Your task to perform on an android device: move a message to another label in the gmail app Image 0: 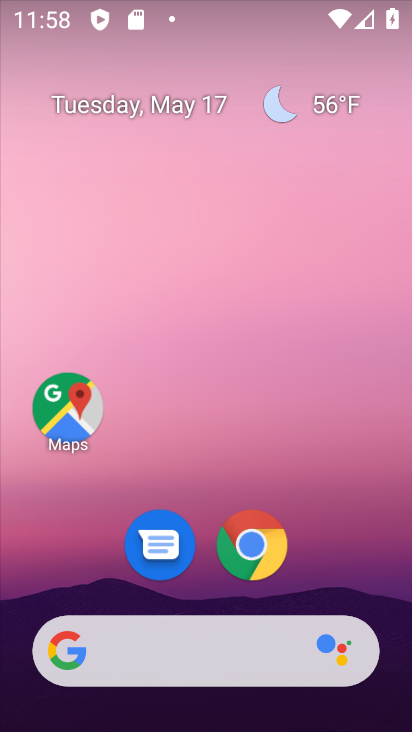
Step 0: drag from (348, 585) to (223, 51)
Your task to perform on an android device: move a message to another label in the gmail app Image 1: 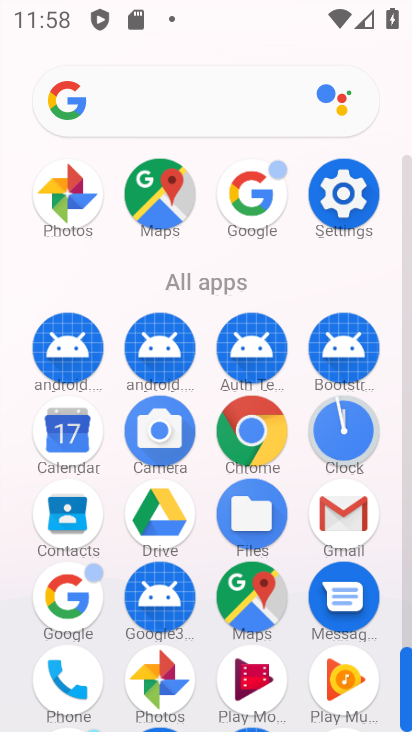
Step 1: click (343, 516)
Your task to perform on an android device: move a message to another label in the gmail app Image 2: 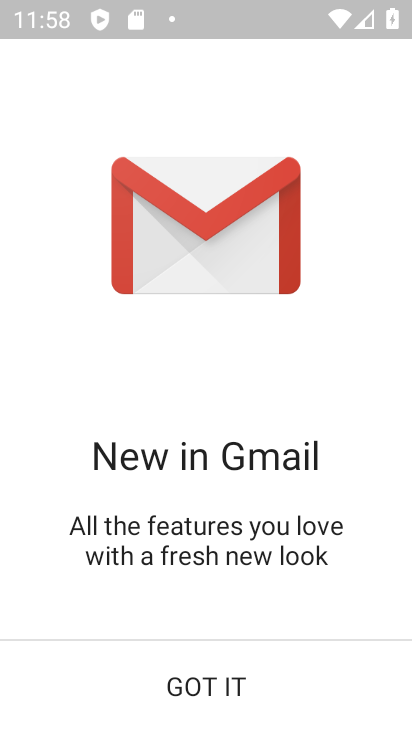
Step 2: click (186, 685)
Your task to perform on an android device: move a message to another label in the gmail app Image 3: 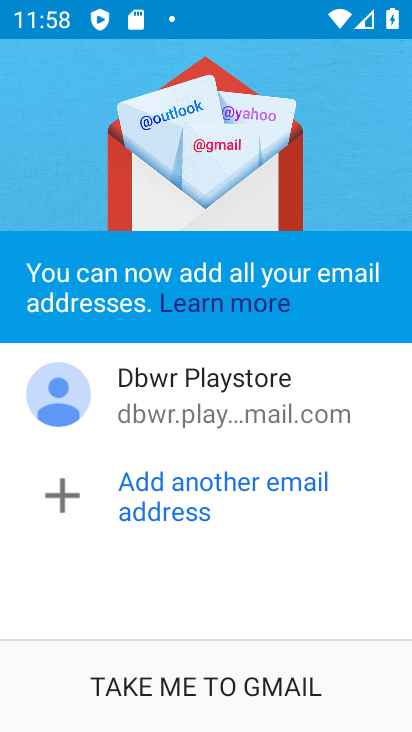
Step 3: click (186, 685)
Your task to perform on an android device: move a message to another label in the gmail app Image 4: 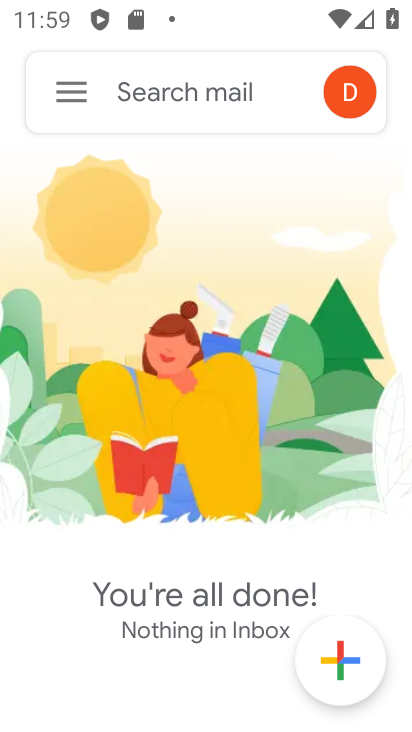
Step 4: click (74, 89)
Your task to perform on an android device: move a message to another label in the gmail app Image 5: 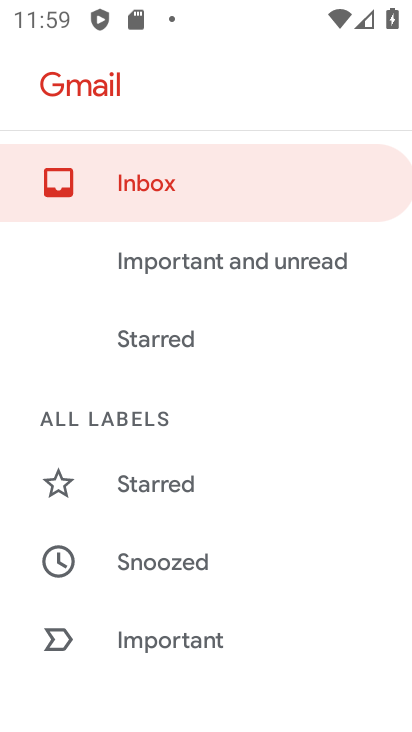
Step 5: drag from (155, 445) to (214, 365)
Your task to perform on an android device: move a message to another label in the gmail app Image 6: 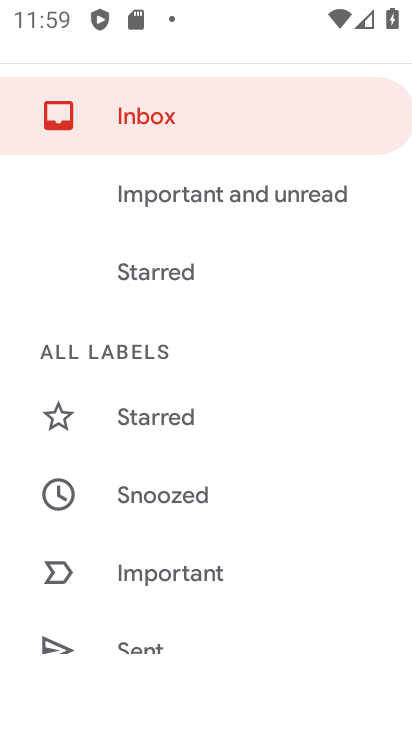
Step 6: drag from (201, 448) to (248, 367)
Your task to perform on an android device: move a message to another label in the gmail app Image 7: 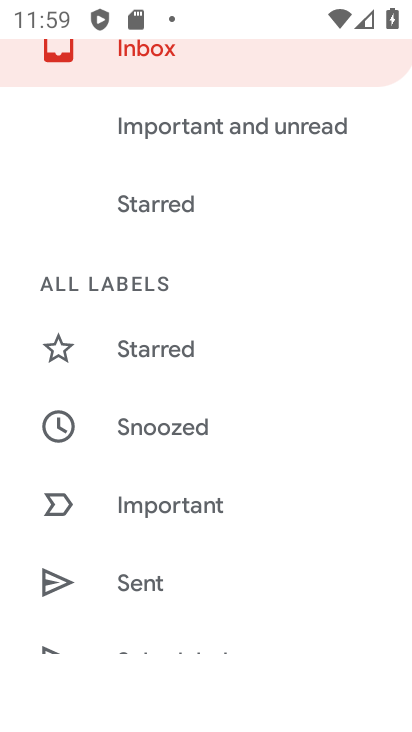
Step 7: drag from (213, 473) to (229, 385)
Your task to perform on an android device: move a message to another label in the gmail app Image 8: 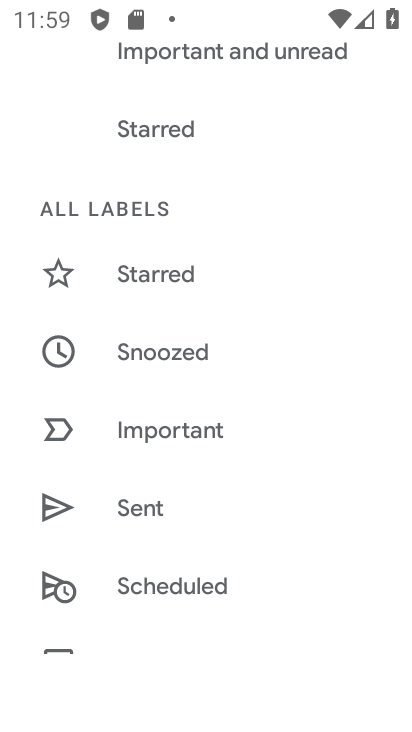
Step 8: drag from (216, 497) to (256, 402)
Your task to perform on an android device: move a message to another label in the gmail app Image 9: 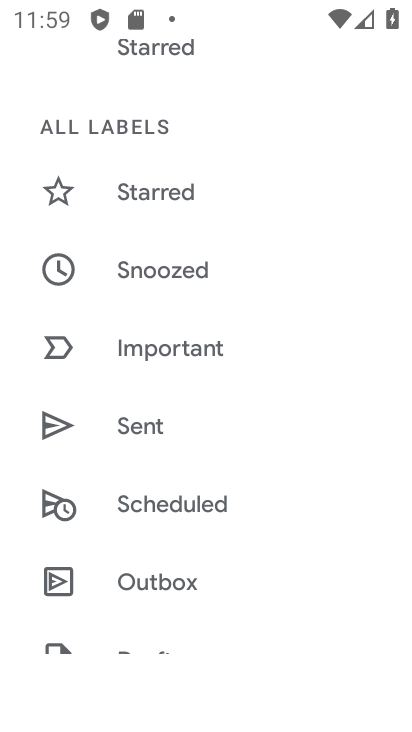
Step 9: drag from (195, 552) to (248, 414)
Your task to perform on an android device: move a message to another label in the gmail app Image 10: 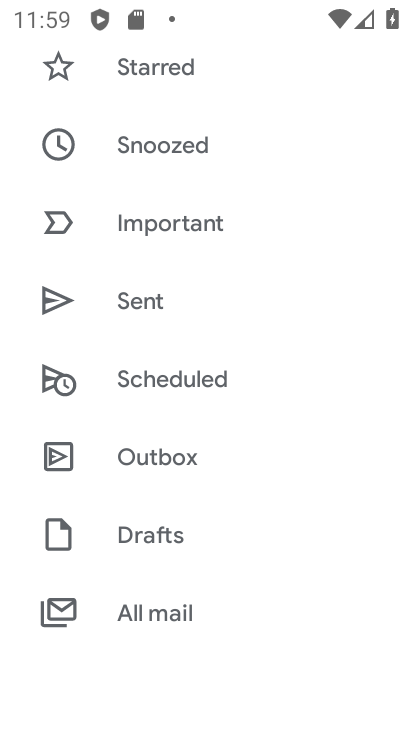
Step 10: click (169, 601)
Your task to perform on an android device: move a message to another label in the gmail app Image 11: 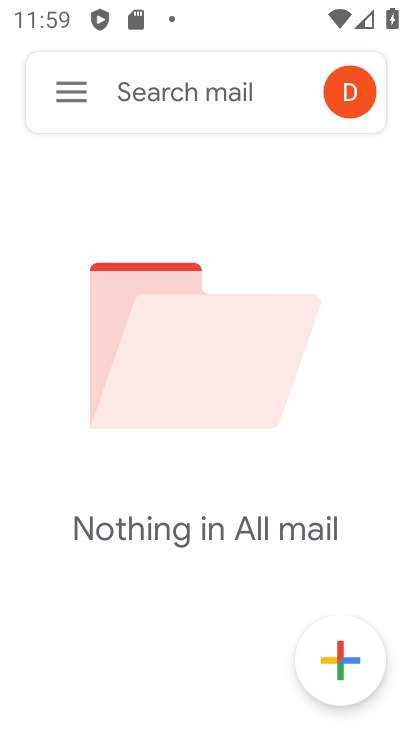
Step 11: click (75, 102)
Your task to perform on an android device: move a message to another label in the gmail app Image 12: 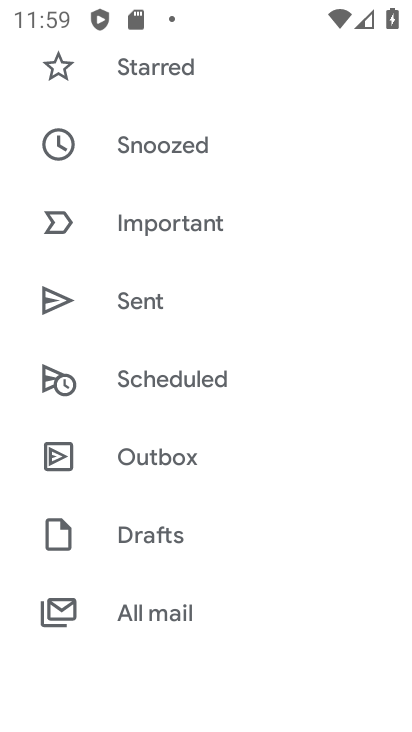
Step 12: drag from (174, 372) to (231, 488)
Your task to perform on an android device: move a message to another label in the gmail app Image 13: 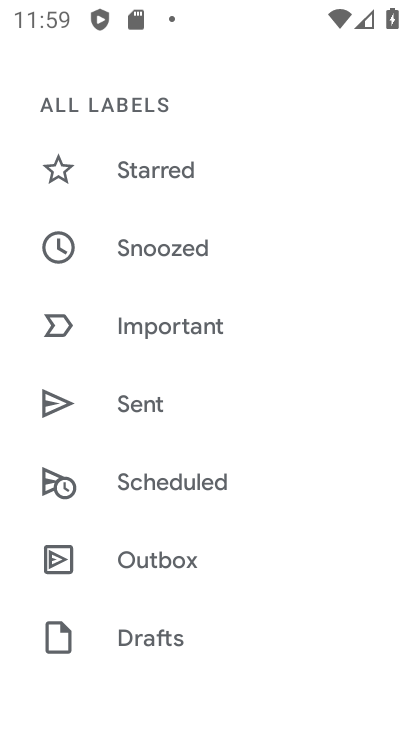
Step 13: drag from (257, 230) to (298, 448)
Your task to perform on an android device: move a message to another label in the gmail app Image 14: 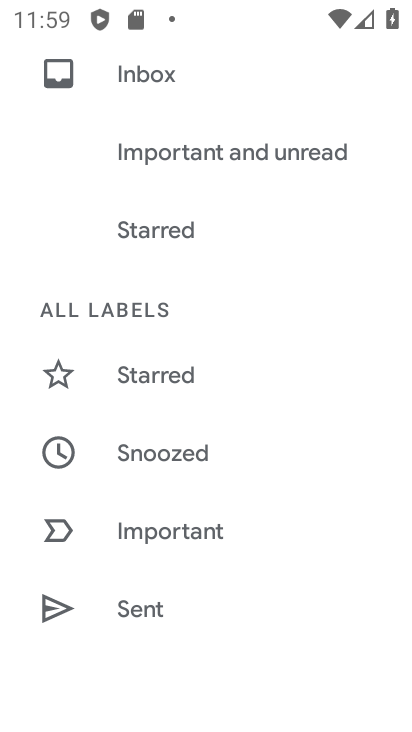
Step 14: drag from (258, 246) to (287, 408)
Your task to perform on an android device: move a message to another label in the gmail app Image 15: 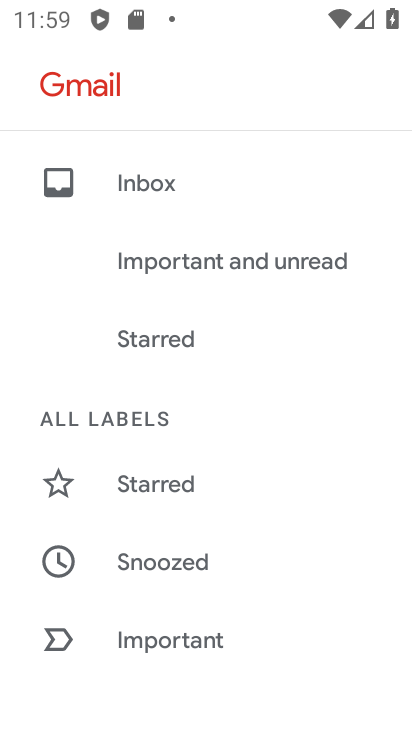
Step 15: click (175, 187)
Your task to perform on an android device: move a message to another label in the gmail app Image 16: 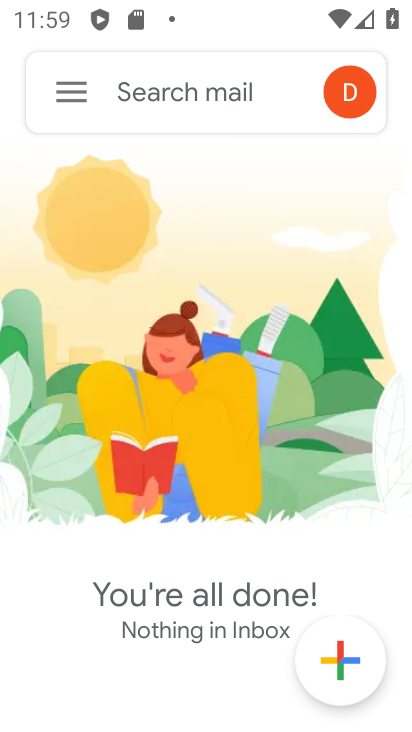
Step 16: task complete